Your task to perform on an android device: Search for sushi restaurants on Maps Image 0: 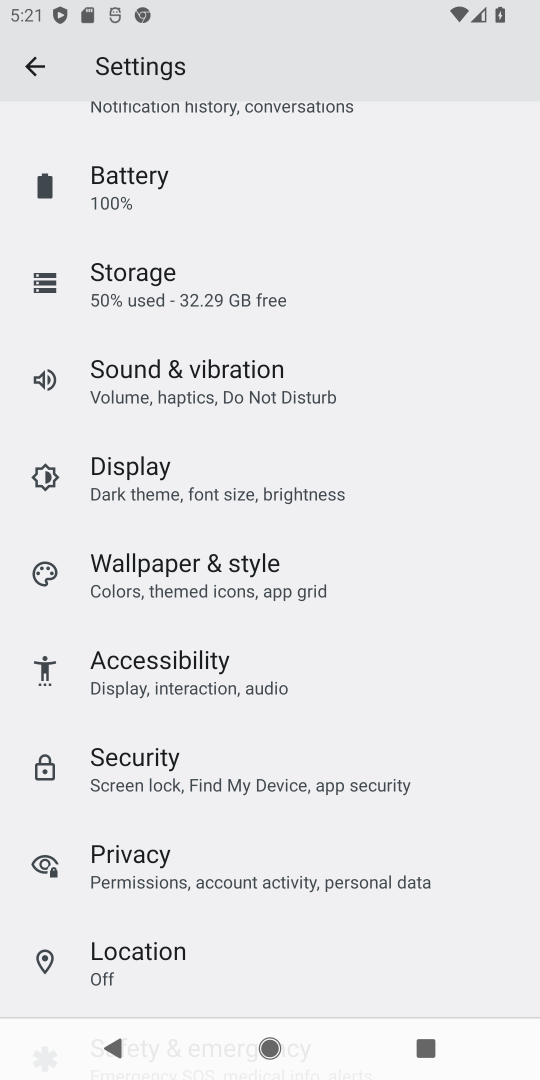
Step 0: press home button
Your task to perform on an android device: Search for sushi restaurants on Maps Image 1: 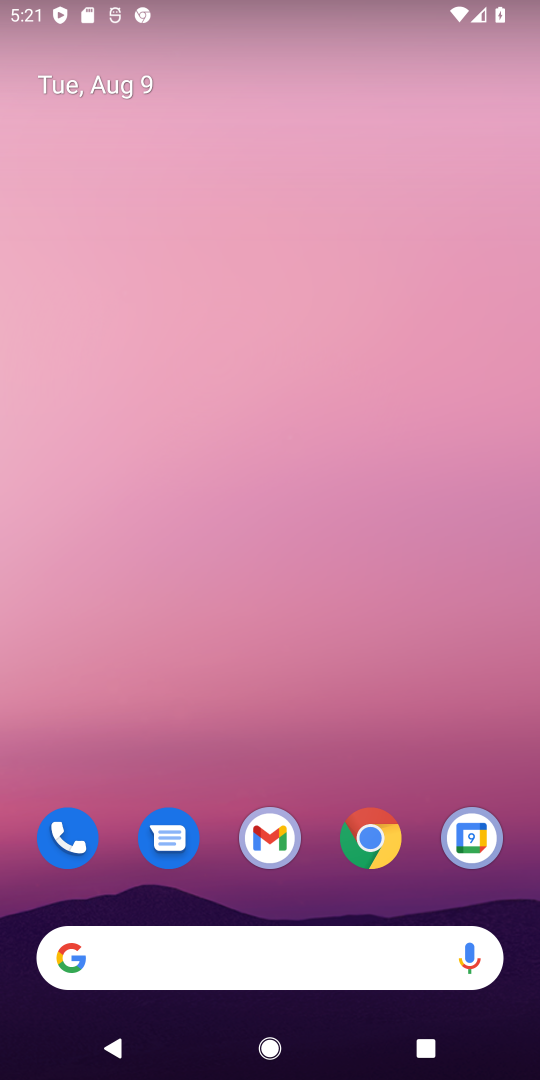
Step 1: drag from (420, 800) to (338, 84)
Your task to perform on an android device: Search for sushi restaurants on Maps Image 2: 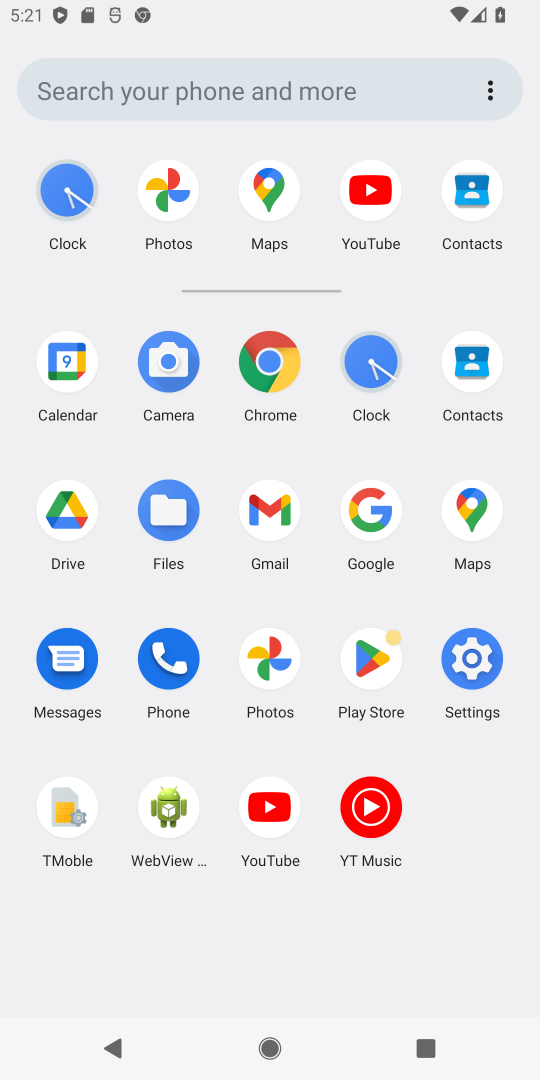
Step 2: click (256, 181)
Your task to perform on an android device: Search for sushi restaurants on Maps Image 3: 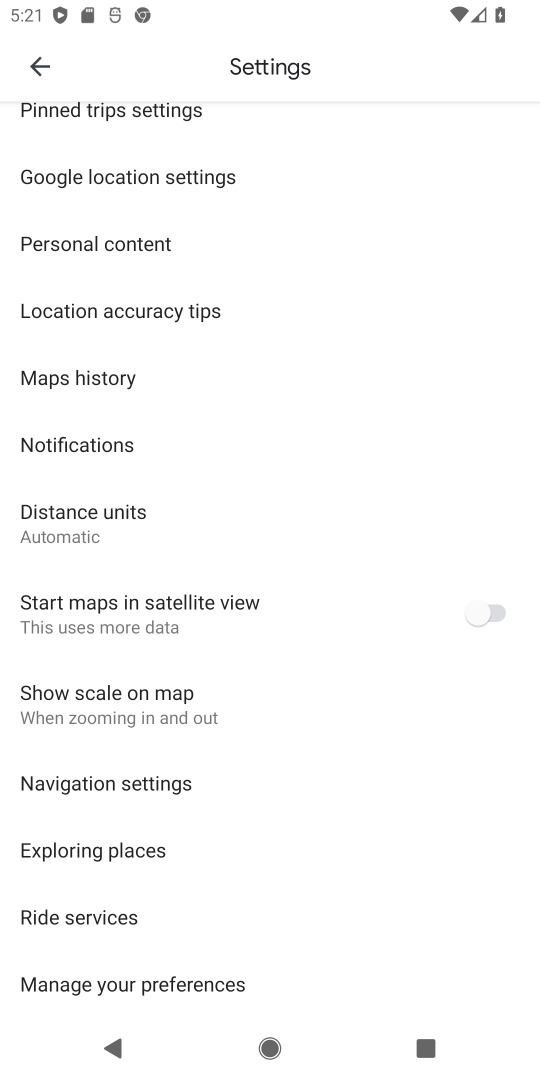
Step 3: click (47, 65)
Your task to perform on an android device: Search for sushi restaurants on Maps Image 4: 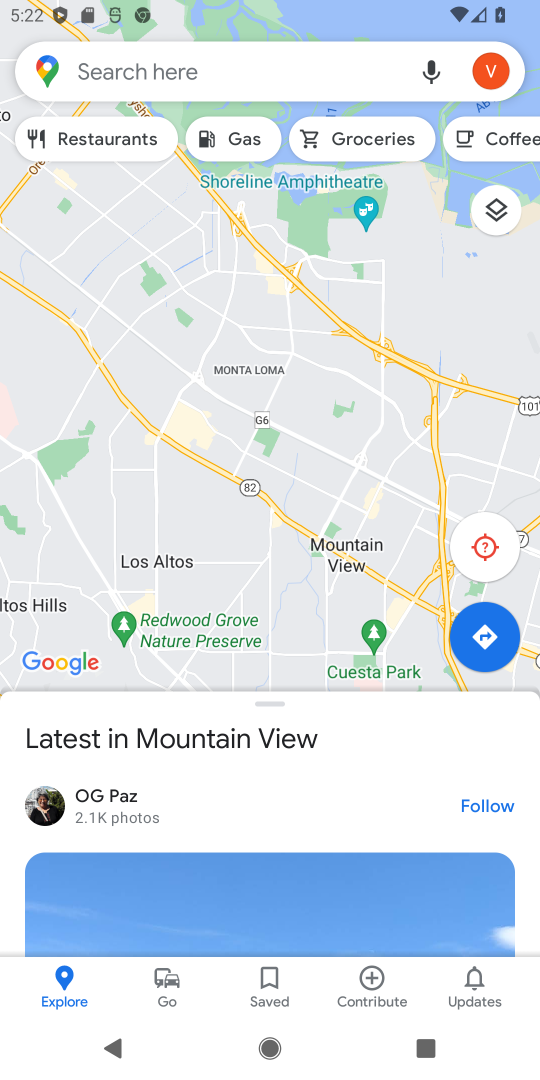
Step 4: click (152, 86)
Your task to perform on an android device: Search for sushi restaurants on Maps Image 5: 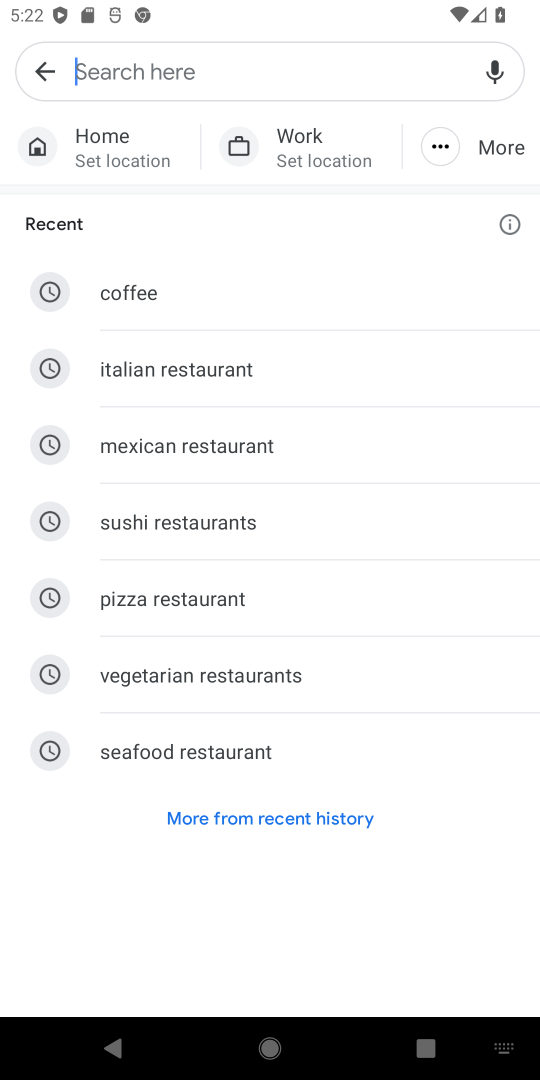
Step 5: click (209, 549)
Your task to perform on an android device: Search for sushi restaurants on Maps Image 6: 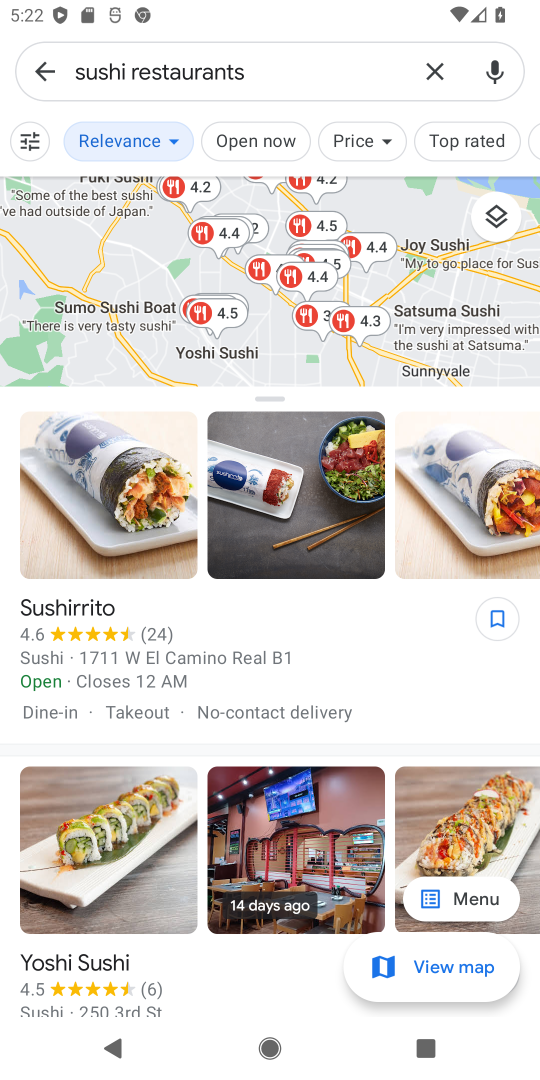
Step 6: task complete